Your task to perform on an android device: Open my contact list Image 0: 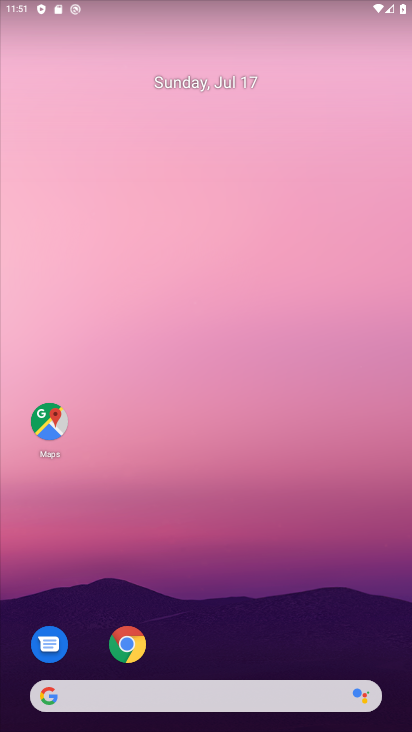
Step 0: drag from (259, 616) to (246, 18)
Your task to perform on an android device: Open my contact list Image 1: 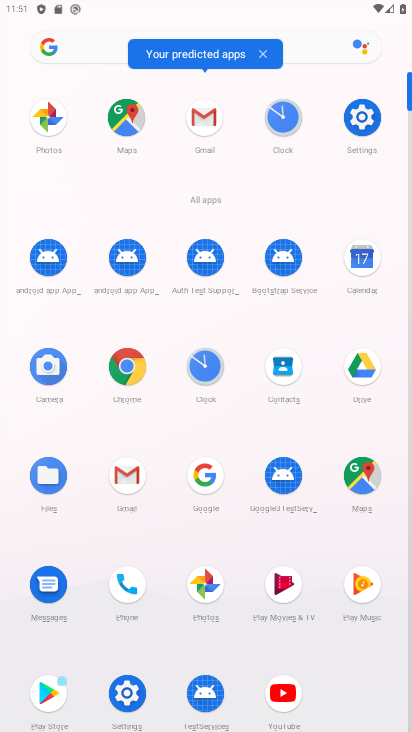
Step 1: click (279, 373)
Your task to perform on an android device: Open my contact list Image 2: 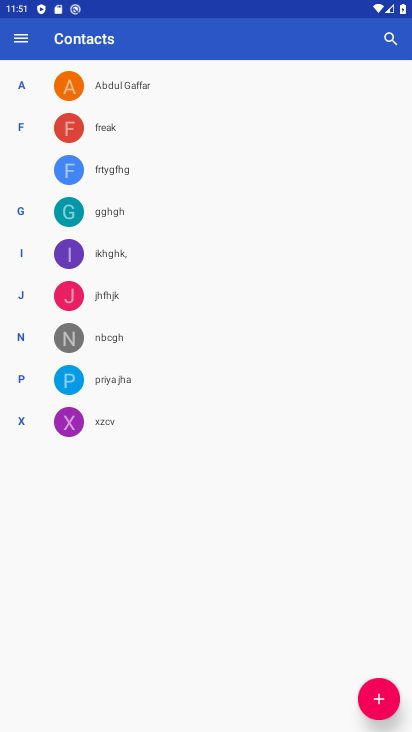
Step 2: task complete